Your task to perform on an android device: Show me the alarms in the clock app Image 0: 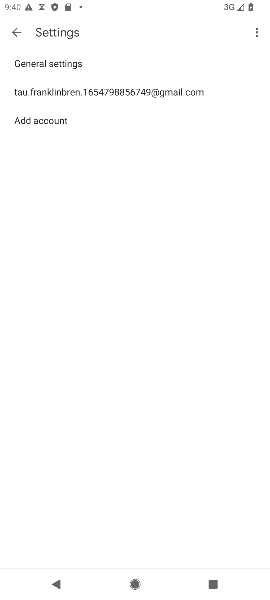
Step 0: press home button
Your task to perform on an android device: Show me the alarms in the clock app Image 1: 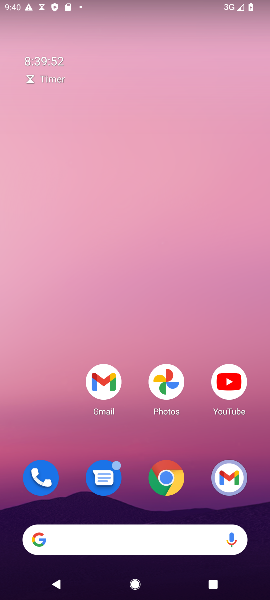
Step 1: drag from (199, 349) to (157, 26)
Your task to perform on an android device: Show me the alarms in the clock app Image 2: 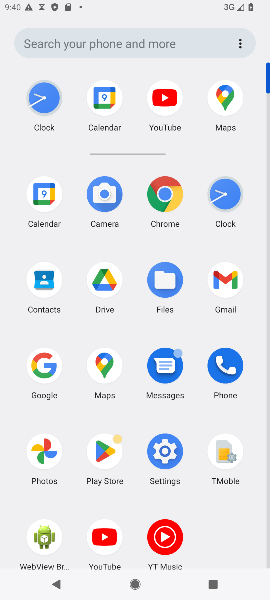
Step 2: click (225, 216)
Your task to perform on an android device: Show me the alarms in the clock app Image 3: 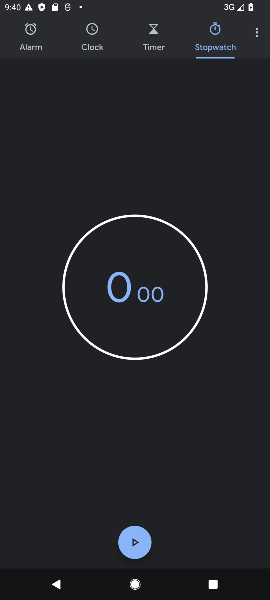
Step 3: click (42, 37)
Your task to perform on an android device: Show me the alarms in the clock app Image 4: 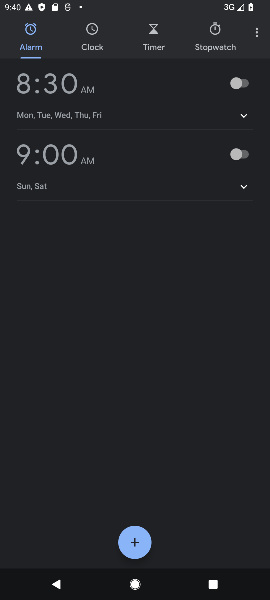
Step 4: task complete